Your task to perform on an android device: Open Google Maps Image 0: 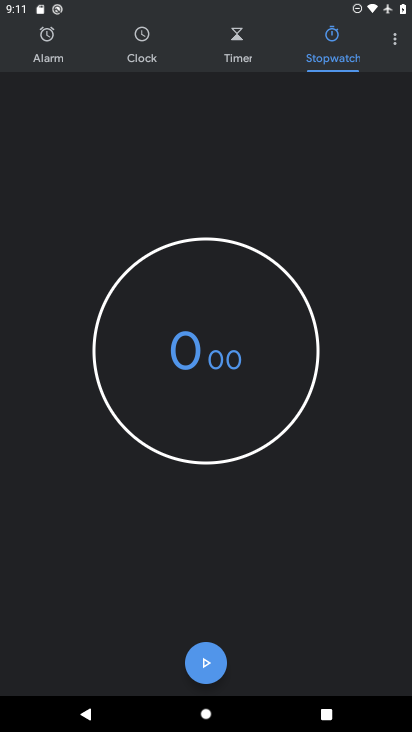
Step 0: press home button
Your task to perform on an android device: Open Google Maps Image 1: 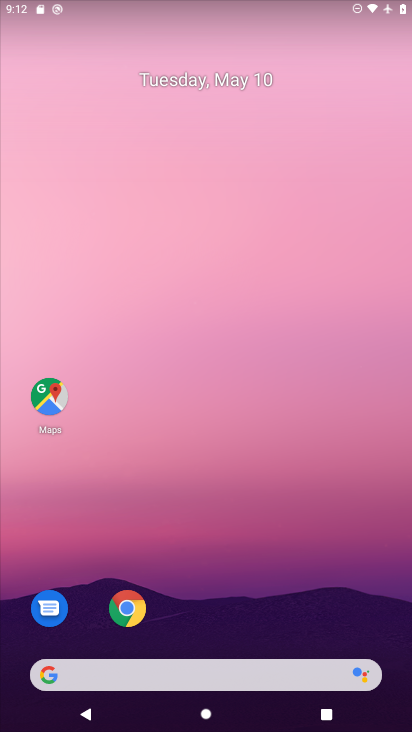
Step 1: drag from (276, 538) to (276, 271)
Your task to perform on an android device: Open Google Maps Image 2: 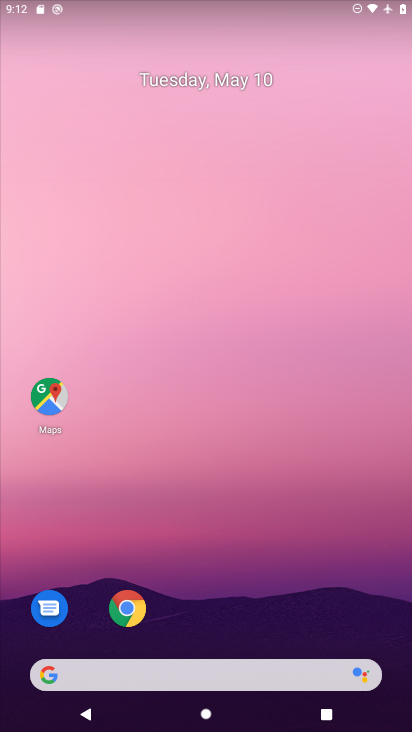
Step 2: click (41, 397)
Your task to perform on an android device: Open Google Maps Image 3: 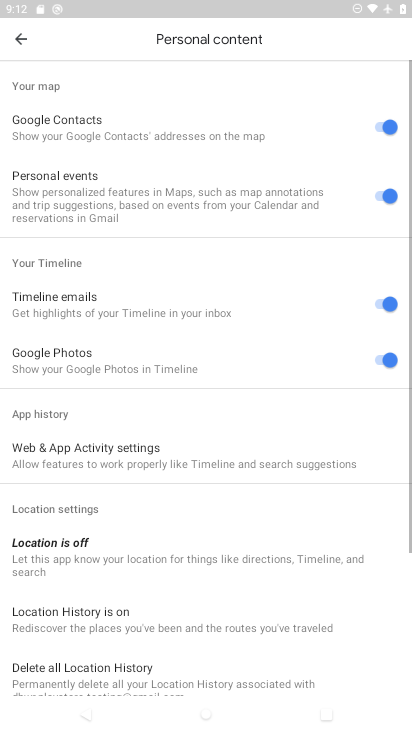
Step 3: click (18, 32)
Your task to perform on an android device: Open Google Maps Image 4: 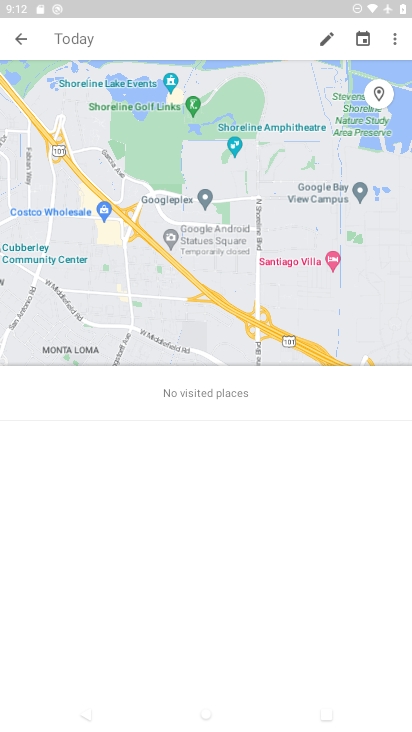
Step 4: task complete